Your task to perform on an android device: open app "Etsy: Buy & Sell Unique Items" (install if not already installed) and enter user name: "camp@inbox.com" and password: "unrelated" Image 0: 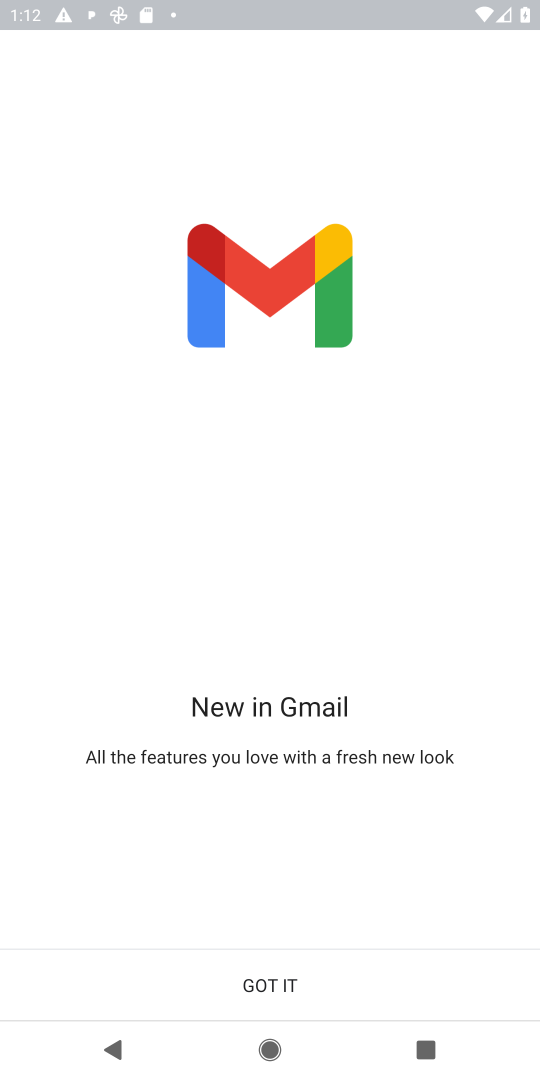
Step 0: drag from (259, 923) to (276, 875)
Your task to perform on an android device: open app "Etsy: Buy & Sell Unique Items" (install if not already installed) and enter user name: "camp@inbox.com" and password: "unrelated" Image 1: 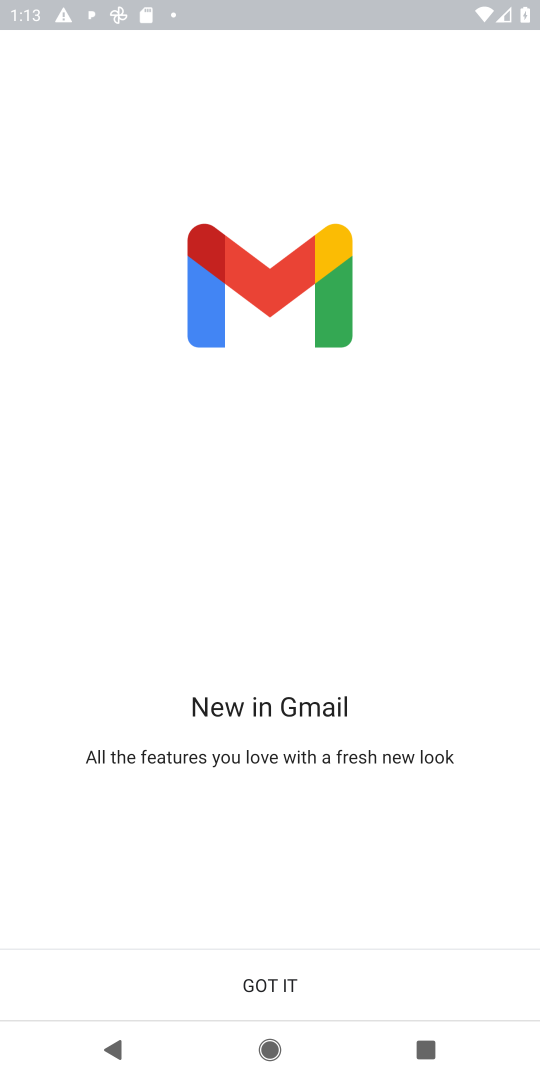
Step 1: press home button
Your task to perform on an android device: open app "Etsy: Buy & Sell Unique Items" (install if not already installed) and enter user name: "camp@inbox.com" and password: "unrelated" Image 2: 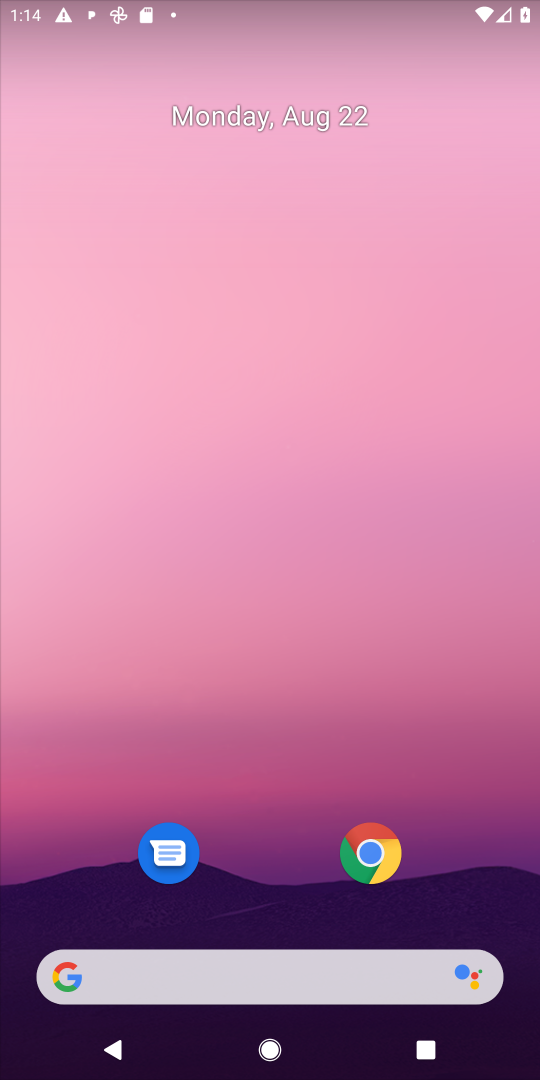
Step 2: drag from (329, 859) to (289, 282)
Your task to perform on an android device: open app "Etsy: Buy & Sell Unique Items" (install if not already installed) and enter user name: "camp@inbox.com" and password: "unrelated" Image 3: 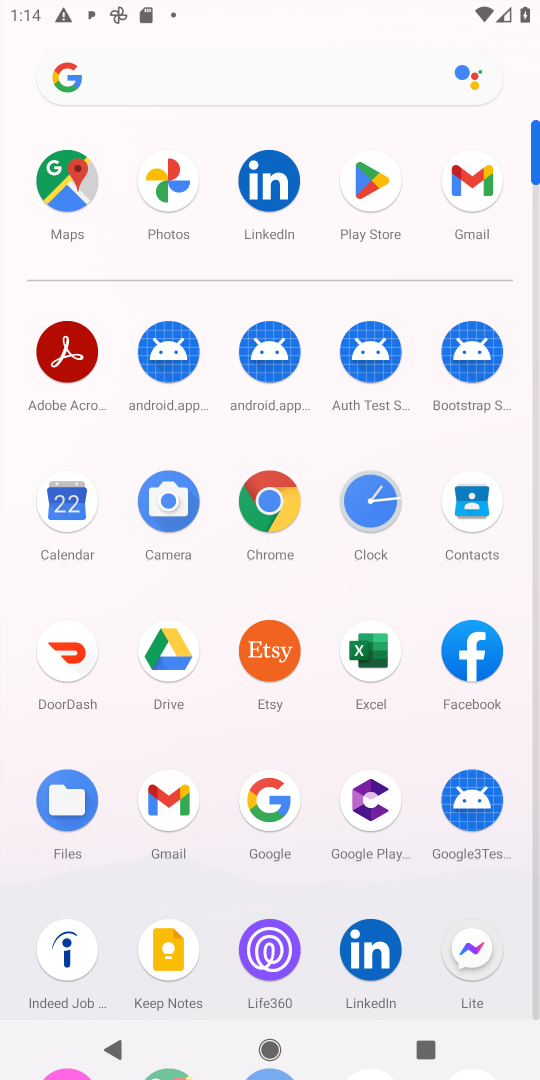
Step 3: click (378, 181)
Your task to perform on an android device: open app "Etsy: Buy & Sell Unique Items" (install if not already installed) and enter user name: "camp@inbox.com" and password: "unrelated" Image 4: 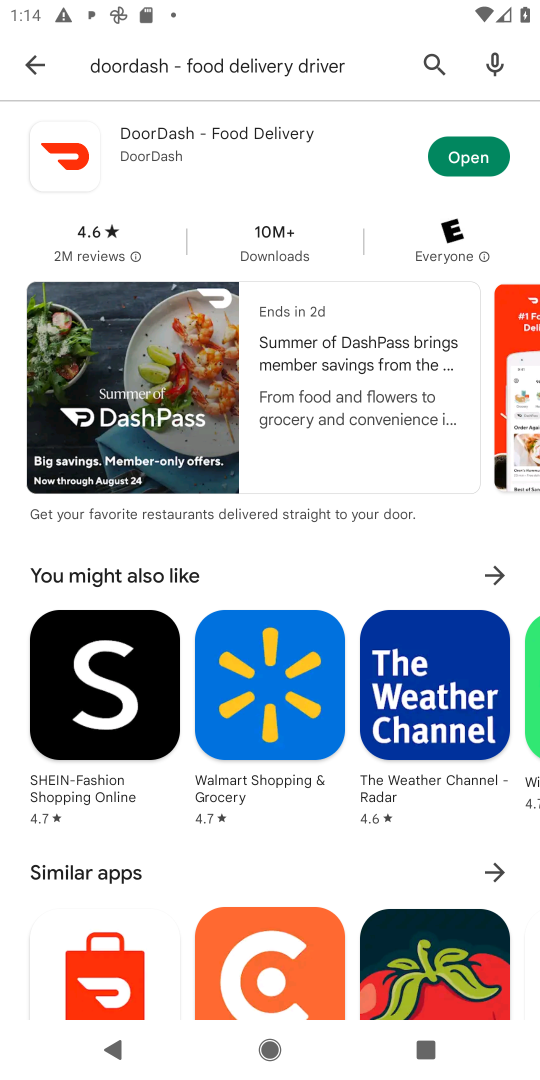
Step 4: click (20, 62)
Your task to perform on an android device: open app "Etsy: Buy & Sell Unique Items" (install if not already installed) and enter user name: "camp@inbox.com" and password: "unrelated" Image 5: 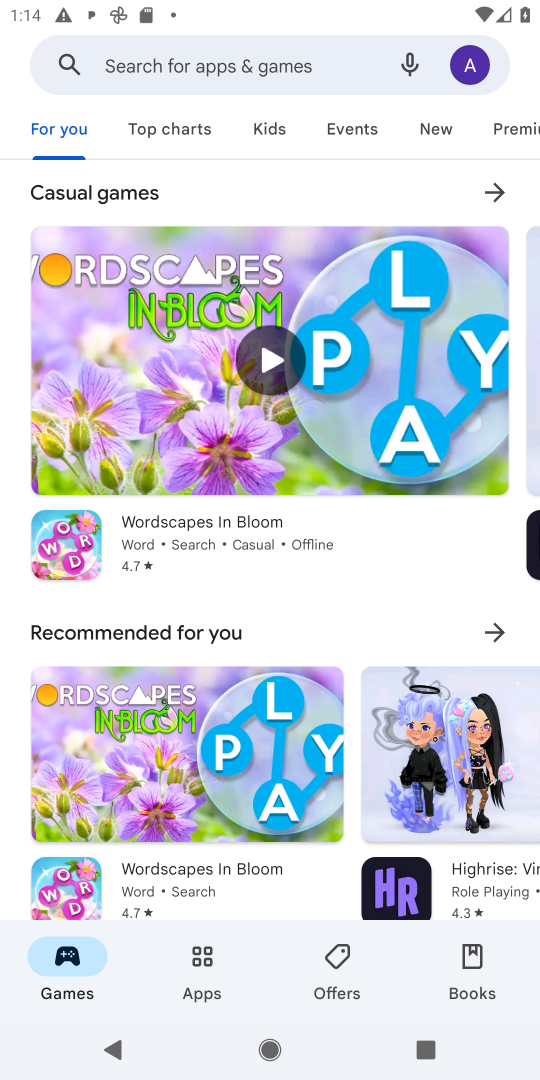
Step 5: click (242, 50)
Your task to perform on an android device: open app "Etsy: Buy & Sell Unique Items" (install if not already installed) and enter user name: "camp@inbox.com" and password: "unrelated" Image 6: 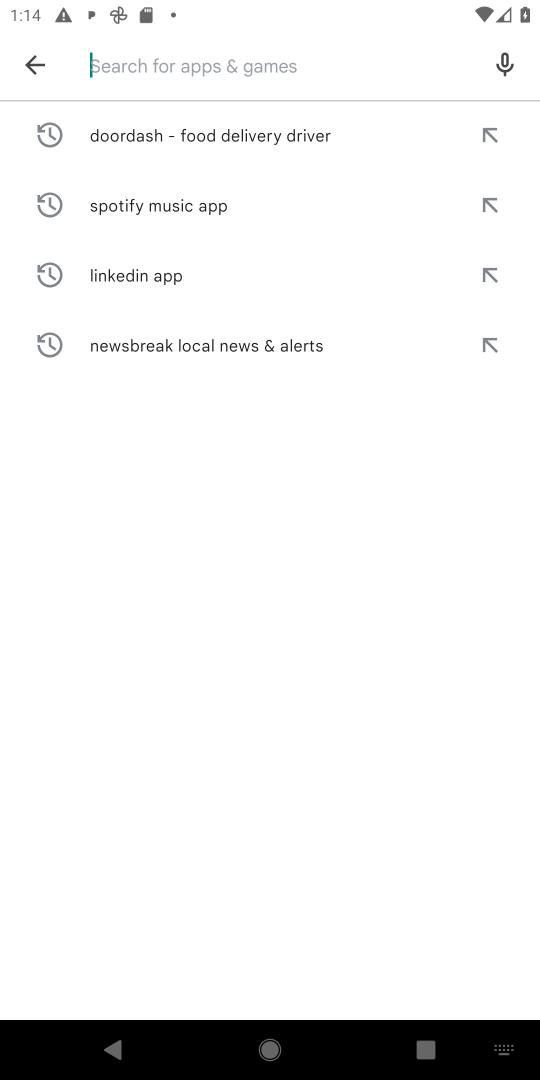
Step 6: type "Etsy: Buy & Sell Unique Items "
Your task to perform on an android device: open app "Etsy: Buy & Sell Unique Items" (install if not already installed) and enter user name: "camp@inbox.com" and password: "unrelated" Image 7: 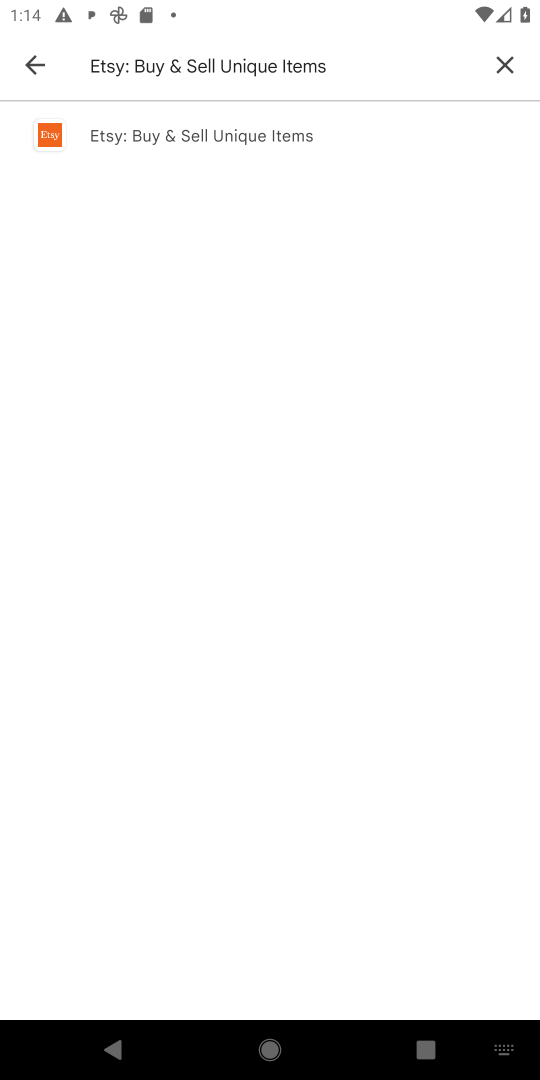
Step 7: click (194, 123)
Your task to perform on an android device: open app "Etsy: Buy & Sell Unique Items" (install if not already installed) and enter user name: "camp@inbox.com" and password: "unrelated" Image 8: 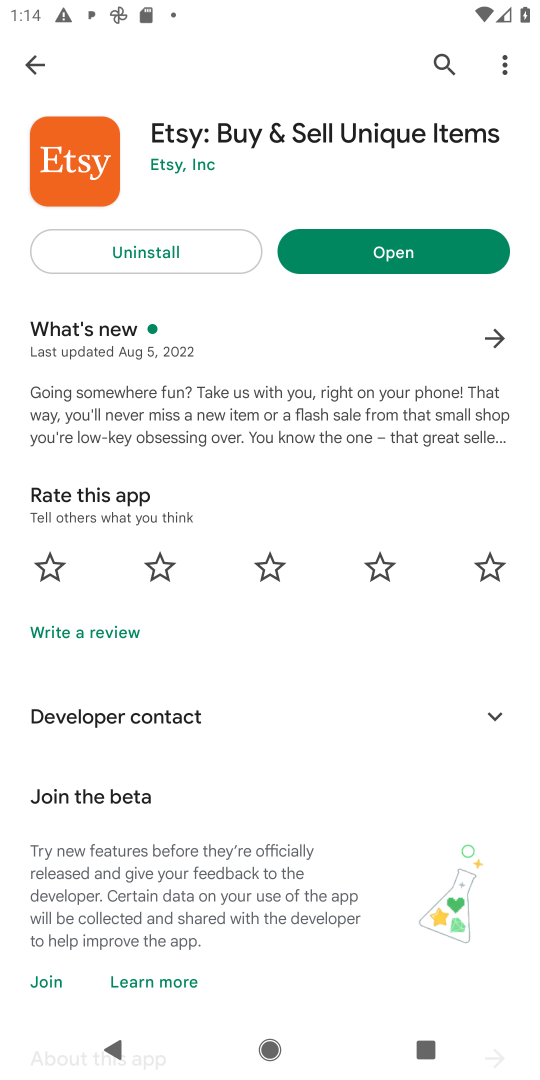
Step 8: click (413, 255)
Your task to perform on an android device: open app "Etsy: Buy & Sell Unique Items" (install if not already installed) and enter user name: "camp@inbox.com" and password: "unrelated" Image 9: 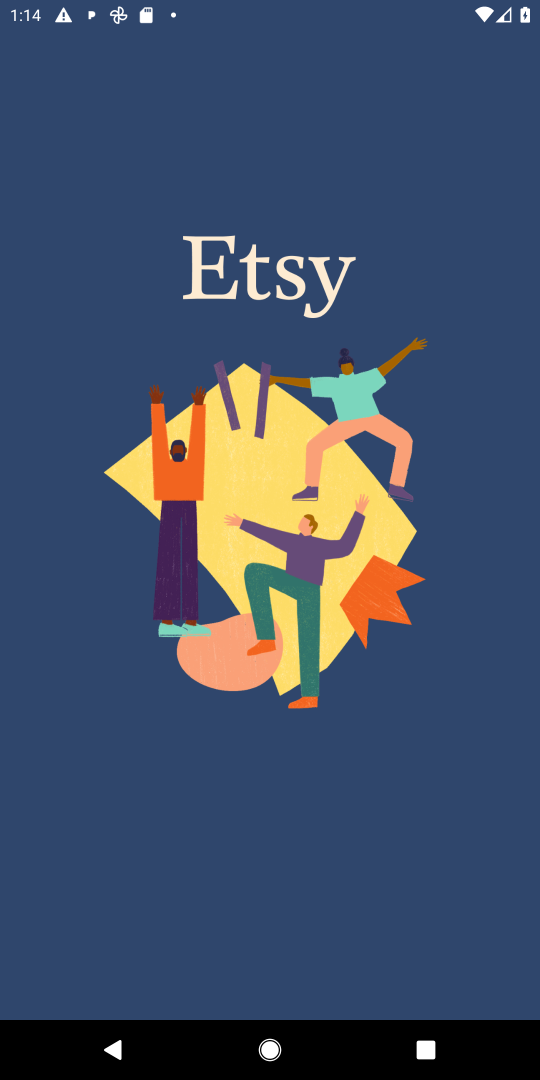
Step 9: task complete